Your task to perform on an android device: check google app version Image 0: 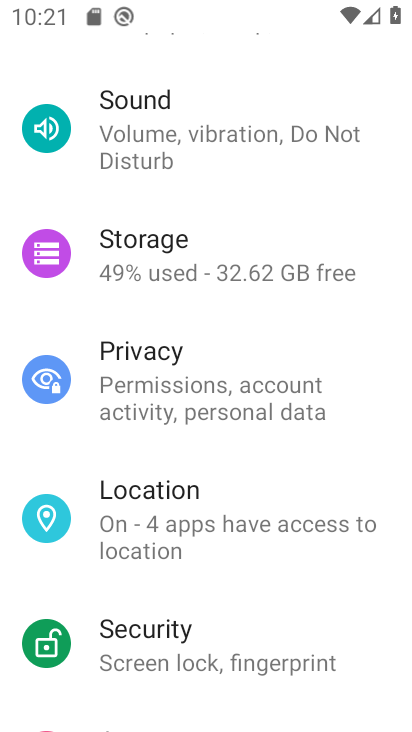
Step 0: press home button
Your task to perform on an android device: check google app version Image 1: 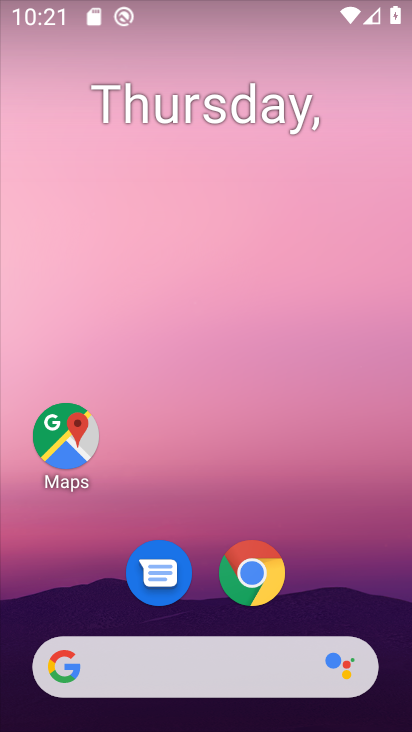
Step 1: drag from (204, 622) to (342, 76)
Your task to perform on an android device: check google app version Image 2: 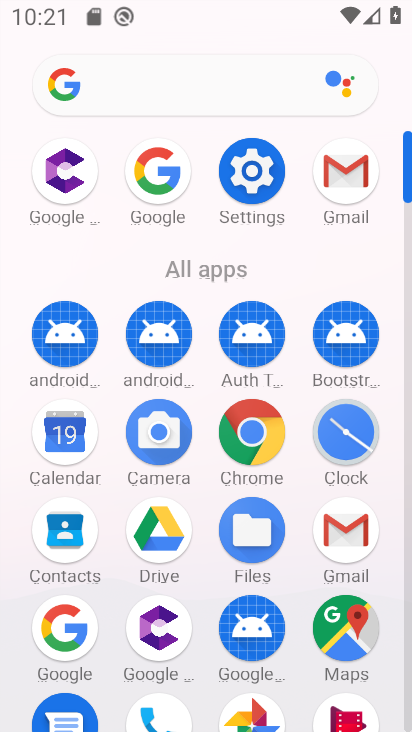
Step 2: click (58, 658)
Your task to perform on an android device: check google app version Image 3: 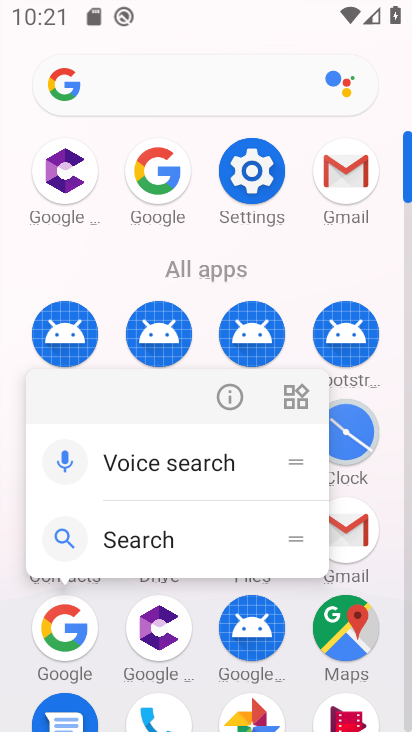
Step 3: click (231, 400)
Your task to perform on an android device: check google app version Image 4: 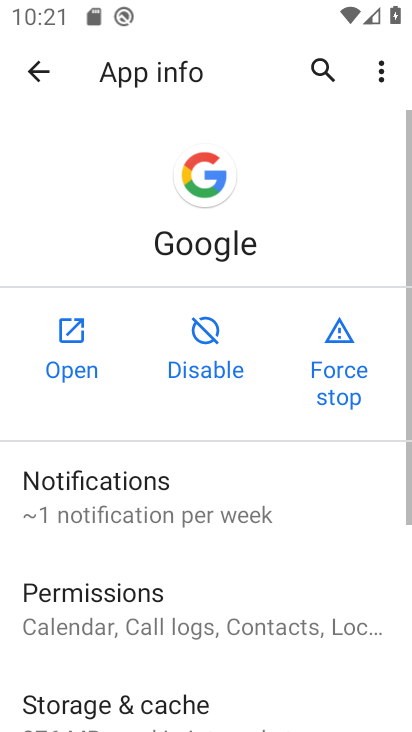
Step 4: drag from (255, 600) to (187, 65)
Your task to perform on an android device: check google app version Image 5: 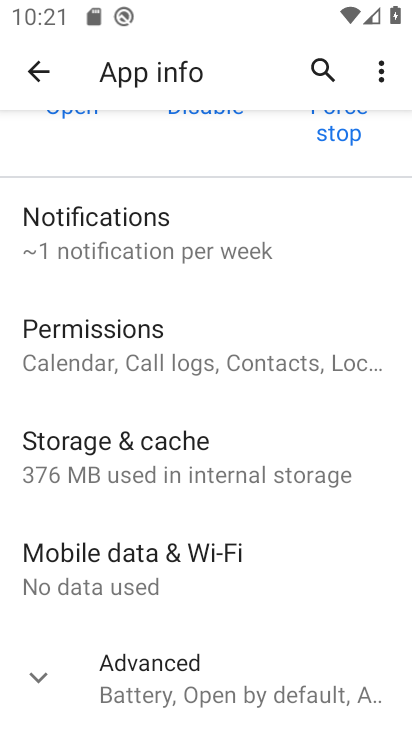
Step 5: click (170, 683)
Your task to perform on an android device: check google app version Image 6: 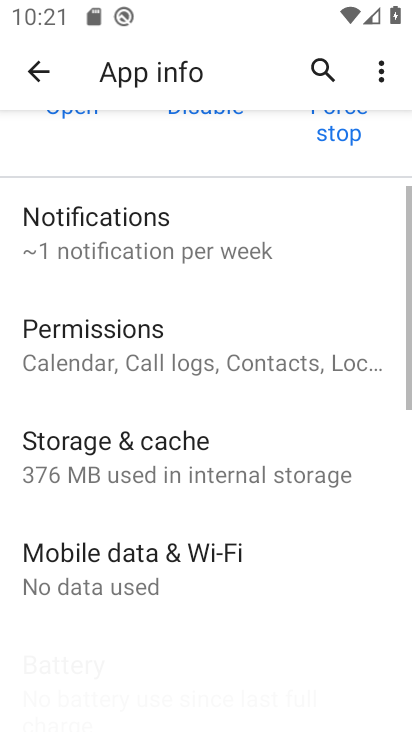
Step 6: task complete